Your task to perform on an android device: Go to Amazon Image 0: 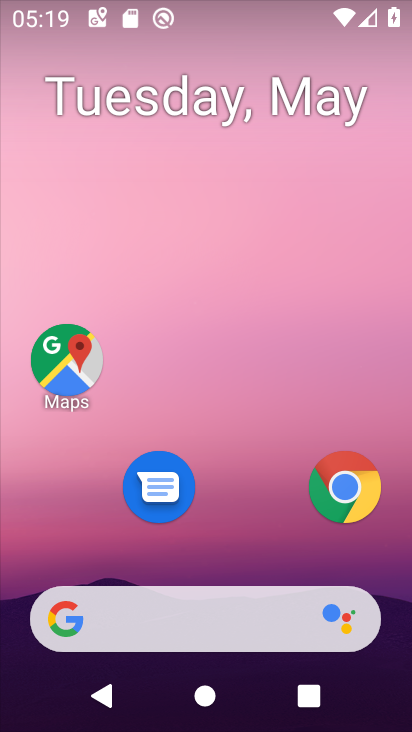
Step 0: click (341, 472)
Your task to perform on an android device: Go to Amazon Image 1: 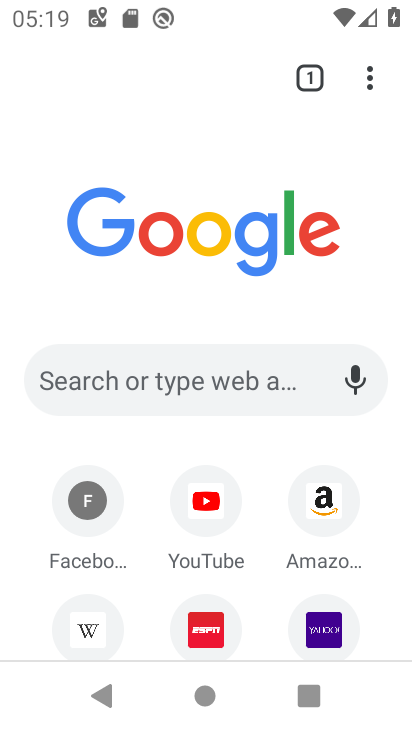
Step 1: click (314, 512)
Your task to perform on an android device: Go to Amazon Image 2: 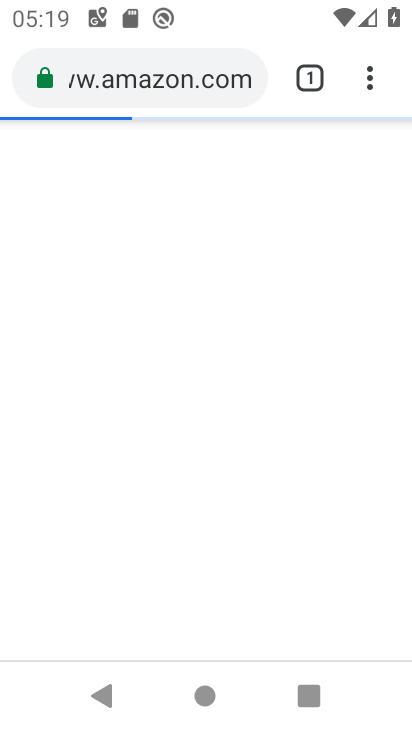
Step 2: task complete